Your task to perform on an android device: Toggle the flashlight Image 0: 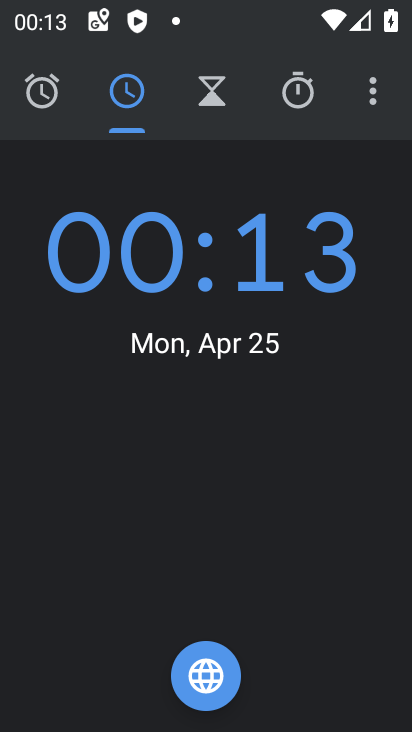
Step 0: press home button
Your task to perform on an android device: Toggle the flashlight Image 1: 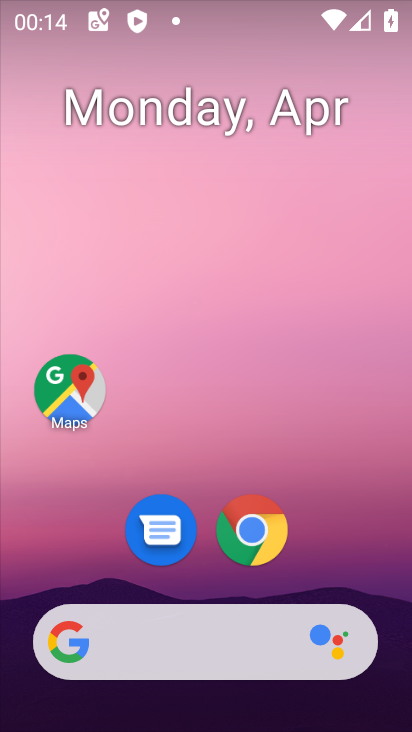
Step 1: task complete